Your task to perform on an android device: open app "Microsoft Authenticator" (install if not already installed) and enter user name: "Cornell@yahoo.com" and password: "bothersome" Image 0: 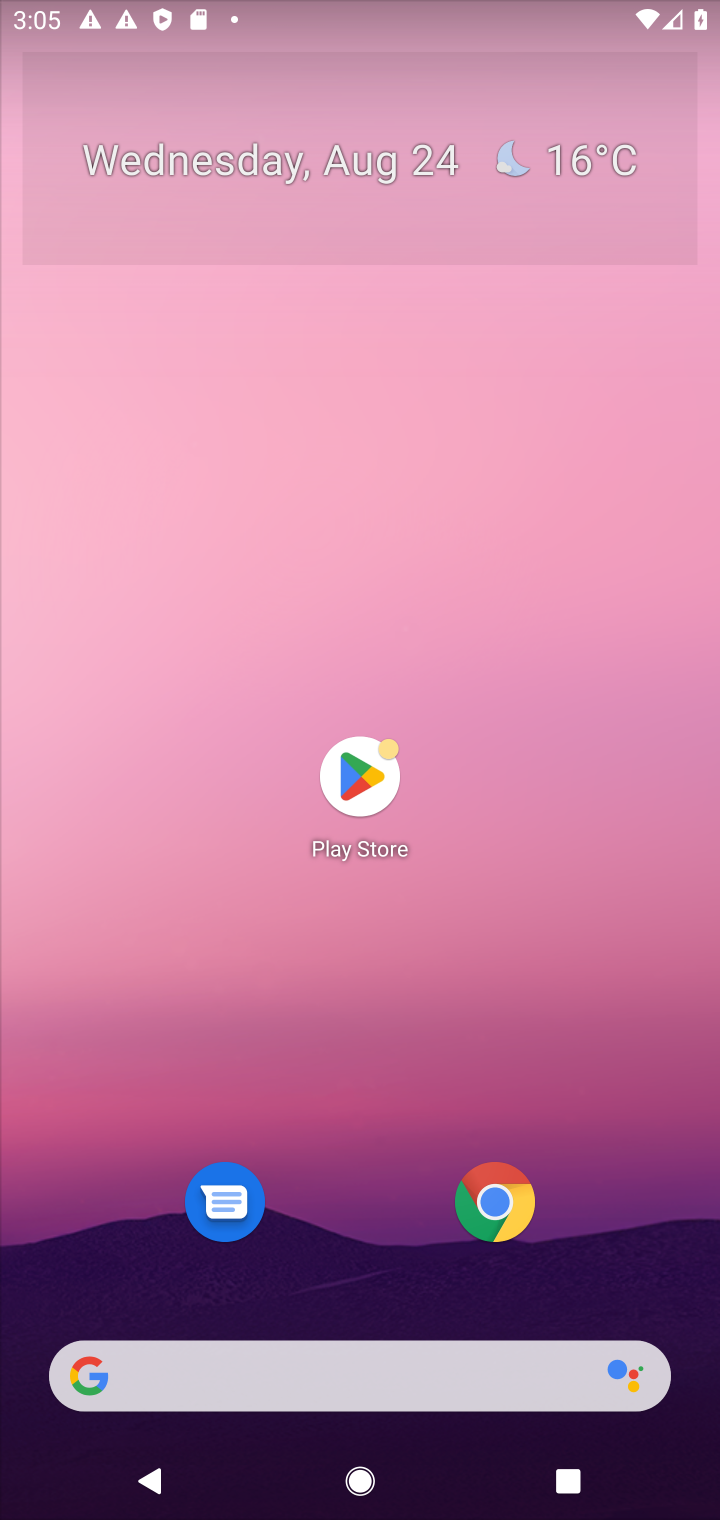
Step 0: click (351, 772)
Your task to perform on an android device: open app "Microsoft Authenticator" (install if not already installed) and enter user name: "Cornell@yahoo.com" and password: "bothersome" Image 1: 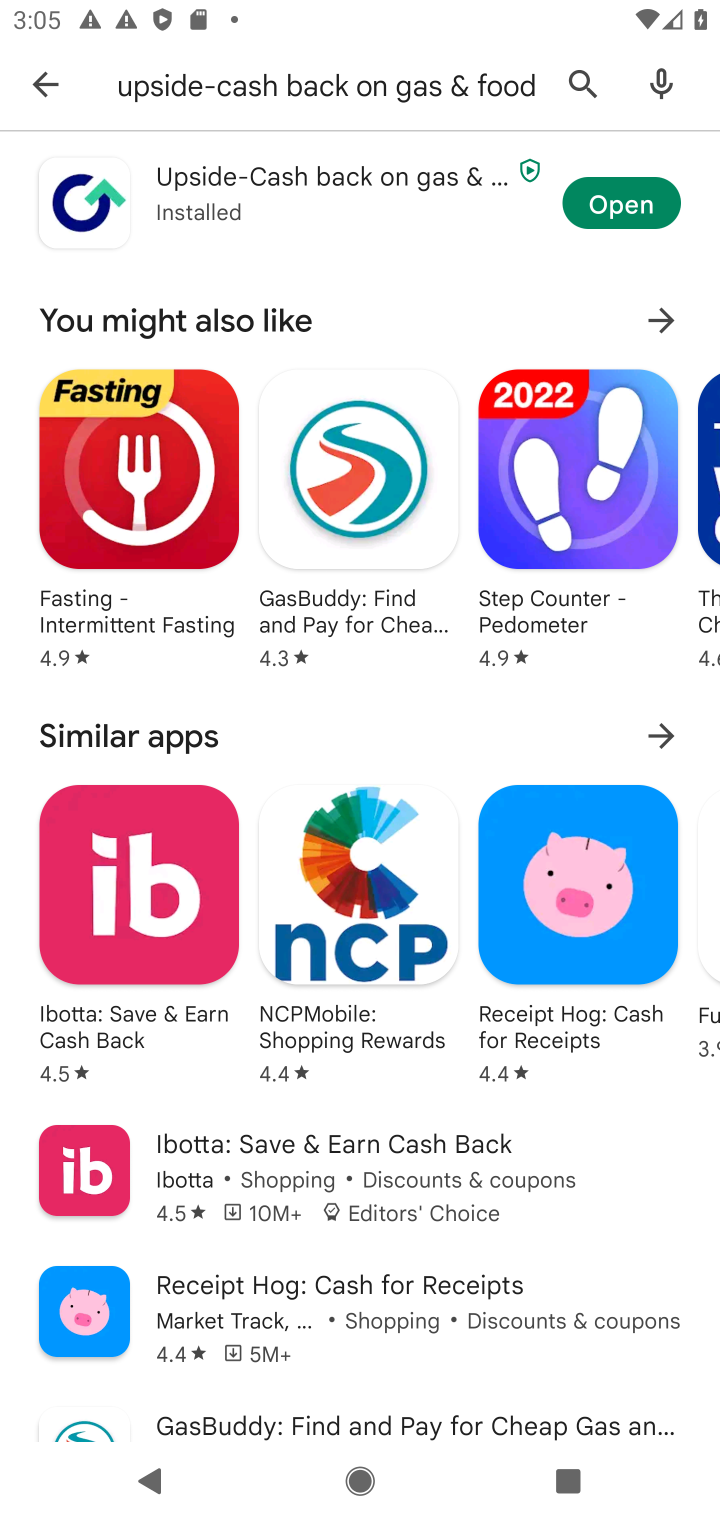
Step 1: click (577, 83)
Your task to perform on an android device: open app "Microsoft Authenticator" (install if not already installed) and enter user name: "Cornell@yahoo.com" and password: "bothersome" Image 2: 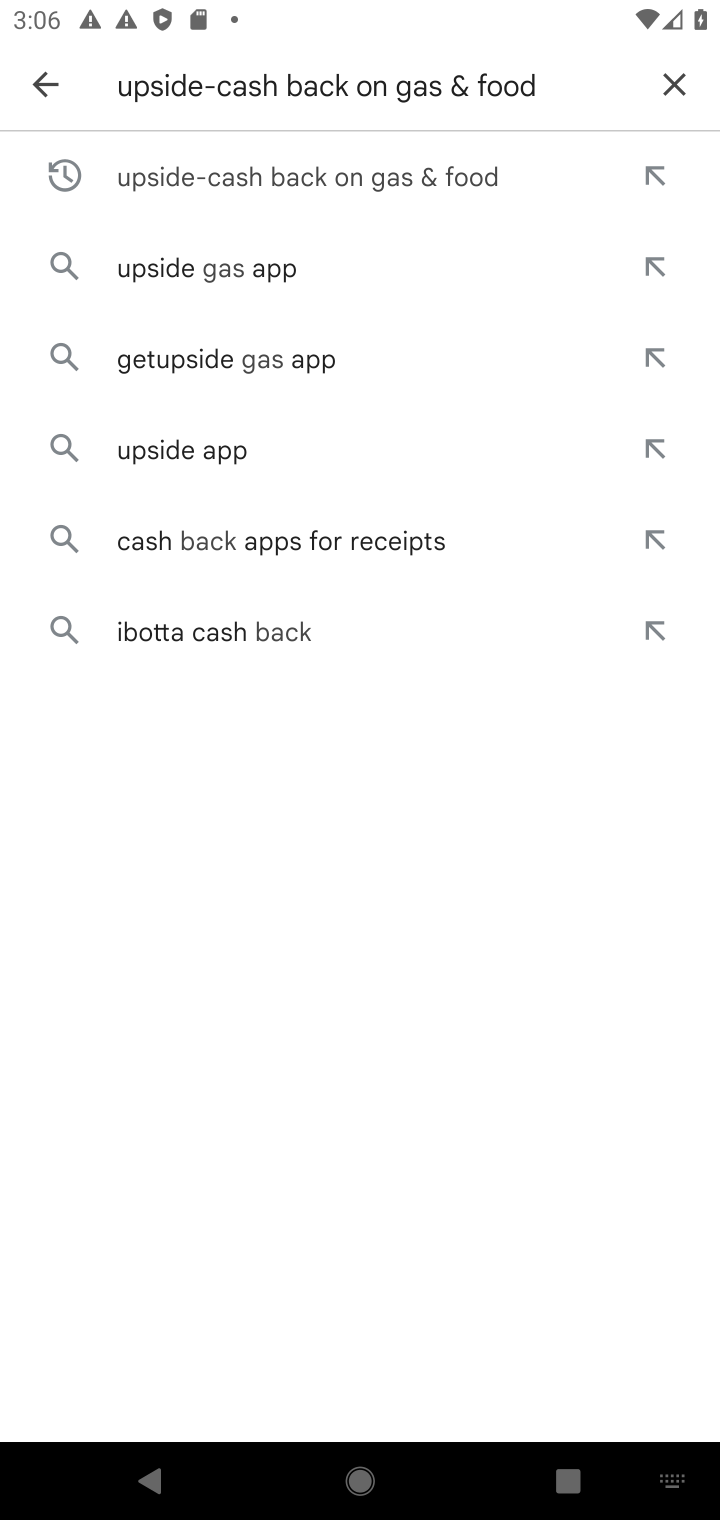
Step 2: click (673, 81)
Your task to perform on an android device: open app "Microsoft Authenticator" (install if not already installed) and enter user name: "Cornell@yahoo.com" and password: "bothersome" Image 3: 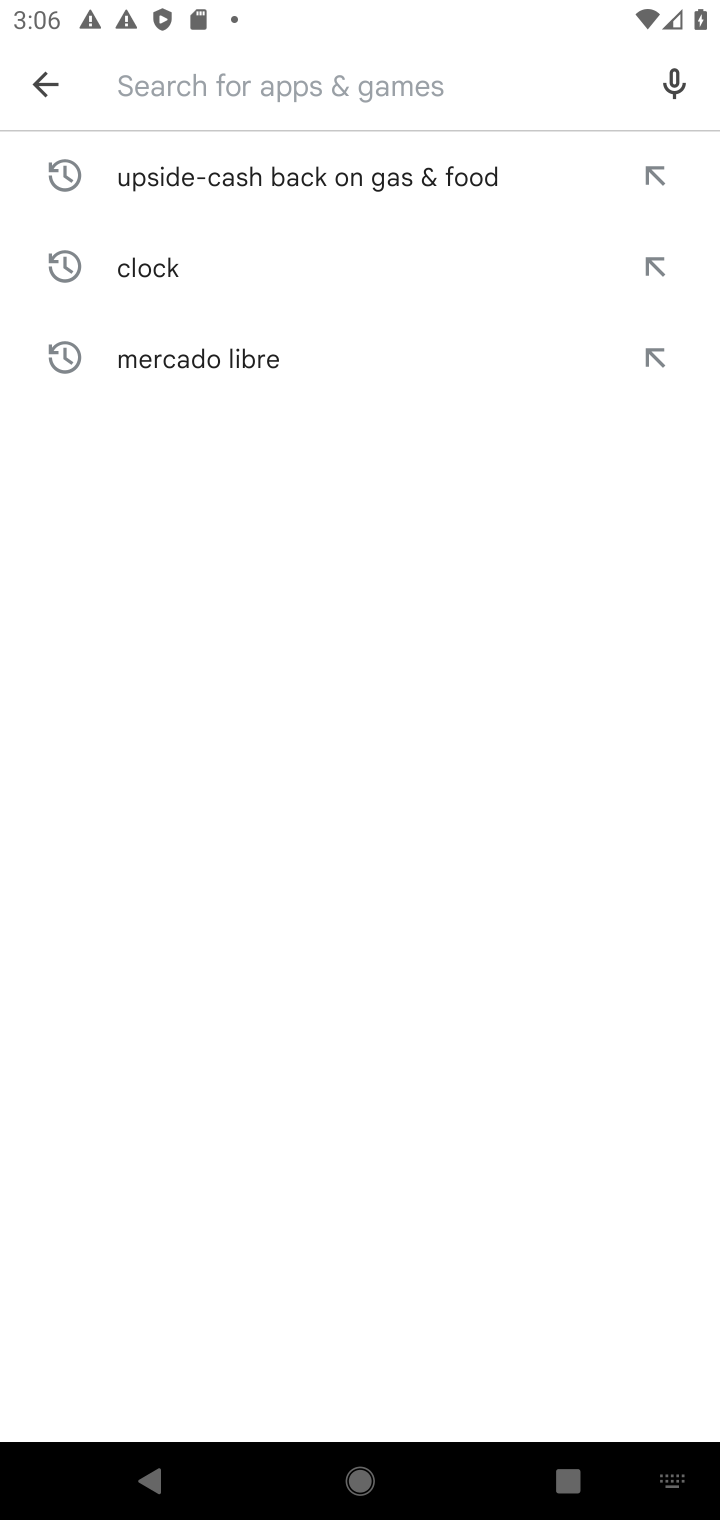
Step 3: type "Microsoft Authenticator"
Your task to perform on an android device: open app "Microsoft Authenticator" (install if not already installed) and enter user name: "Cornell@yahoo.com" and password: "bothersome" Image 4: 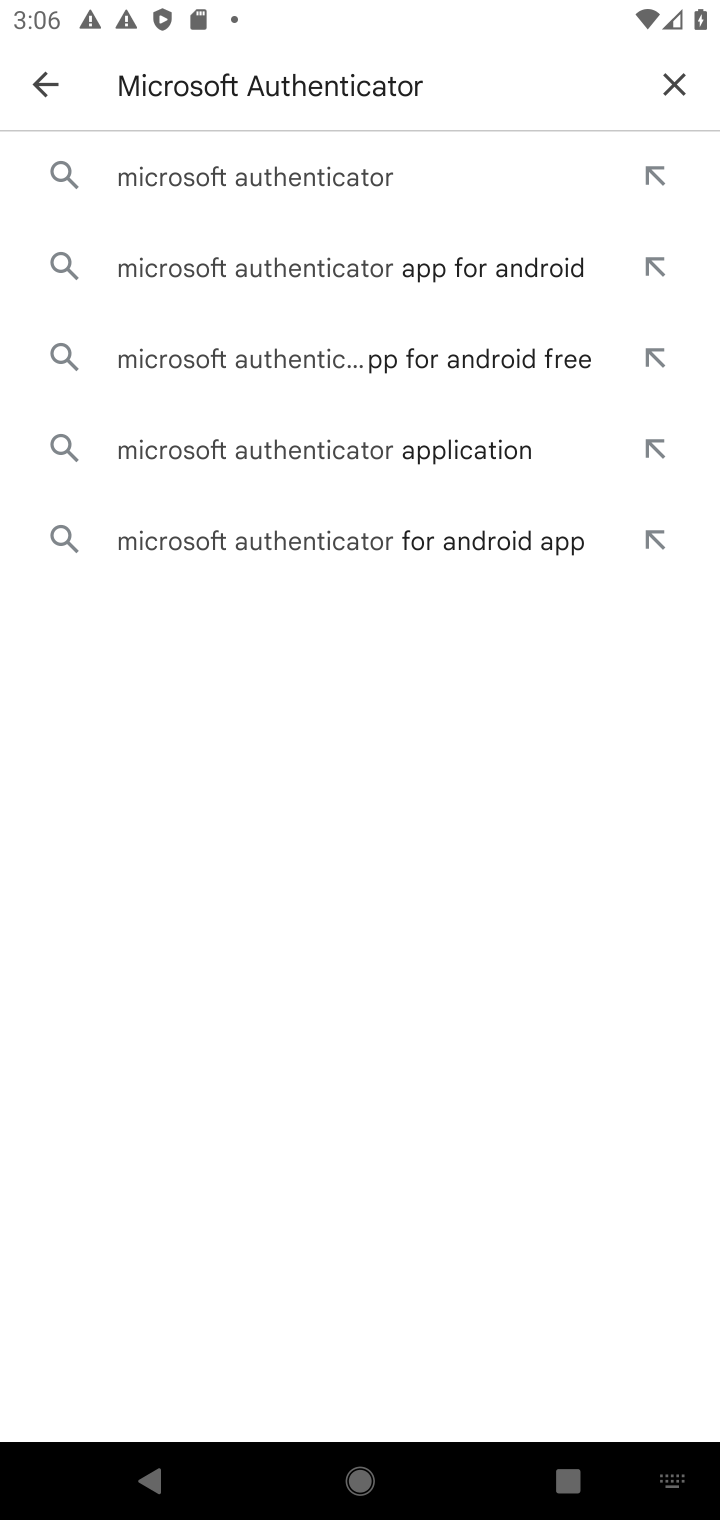
Step 4: click (219, 172)
Your task to perform on an android device: open app "Microsoft Authenticator" (install if not already installed) and enter user name: "Cornell@yahoo.com" and password: "bothersome" Image 5: 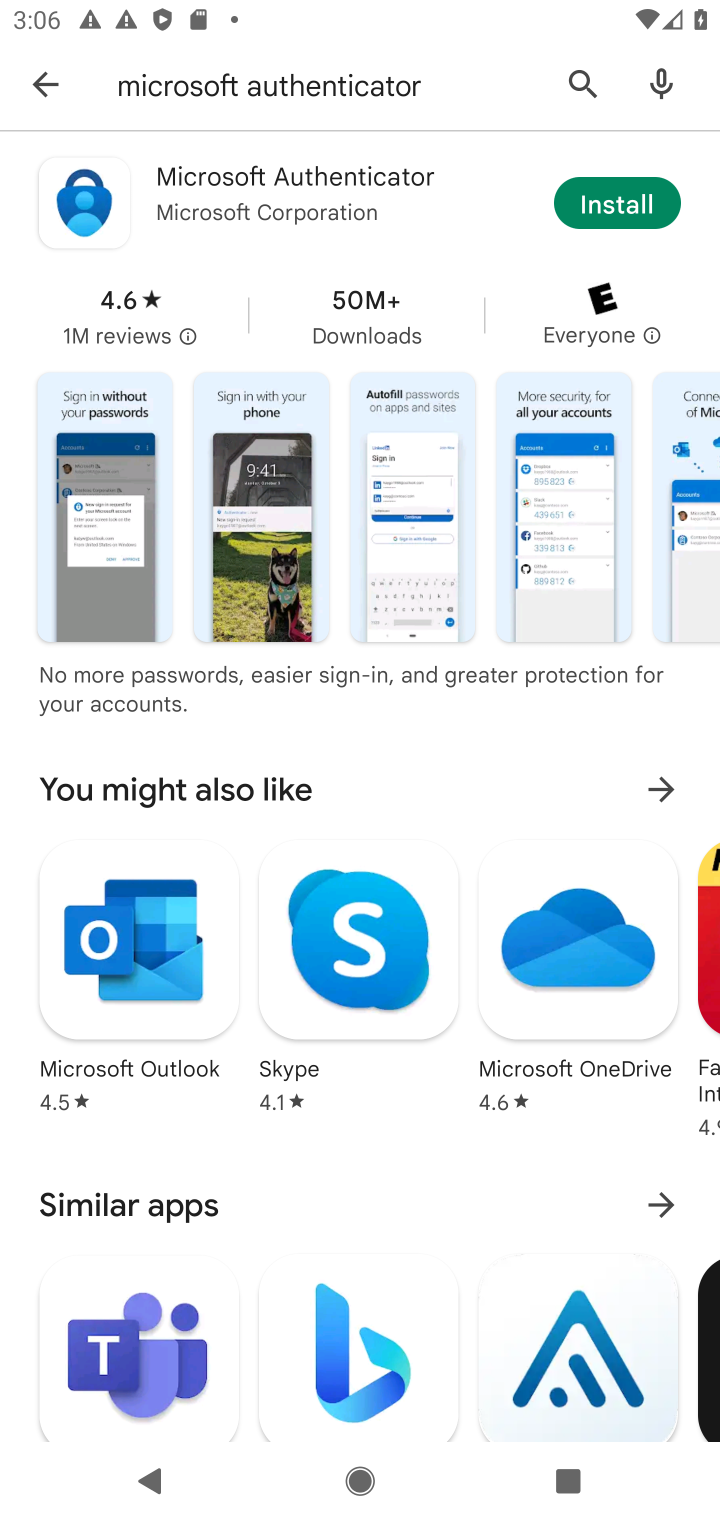
Step 5: click (626, 205)
Your task to perform on an android device: open app "Microsoft Authenticator" (install if not already installed) and enter user name: "Cornell@yahoo.com" and password: "bothersome" Image 6: 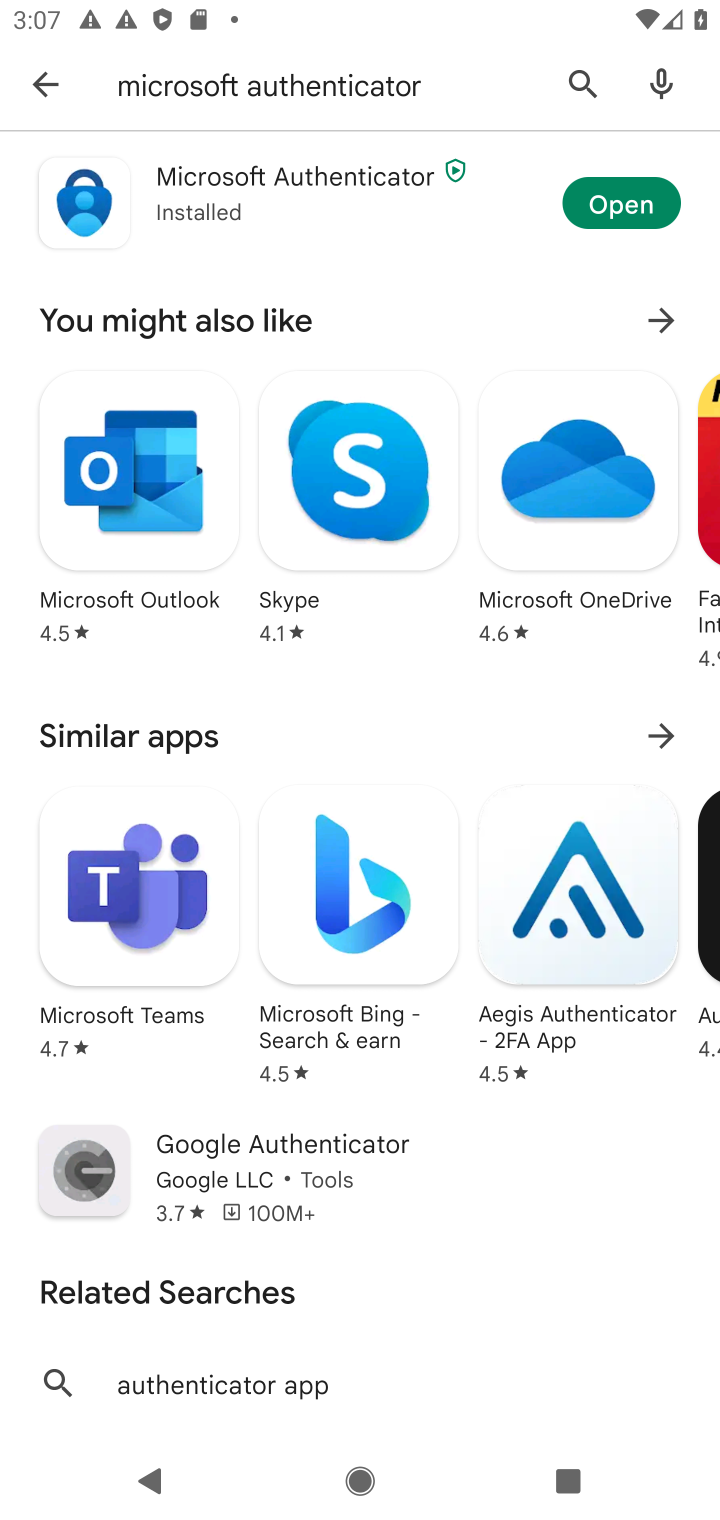
Step 6: click (636, 210)
Your task to perform on an android device: open app "Microsoft Authenticator" (install if not already installed) and enter user name: "Cornell@yahoo.com" and password: "bothersome" Image 7: 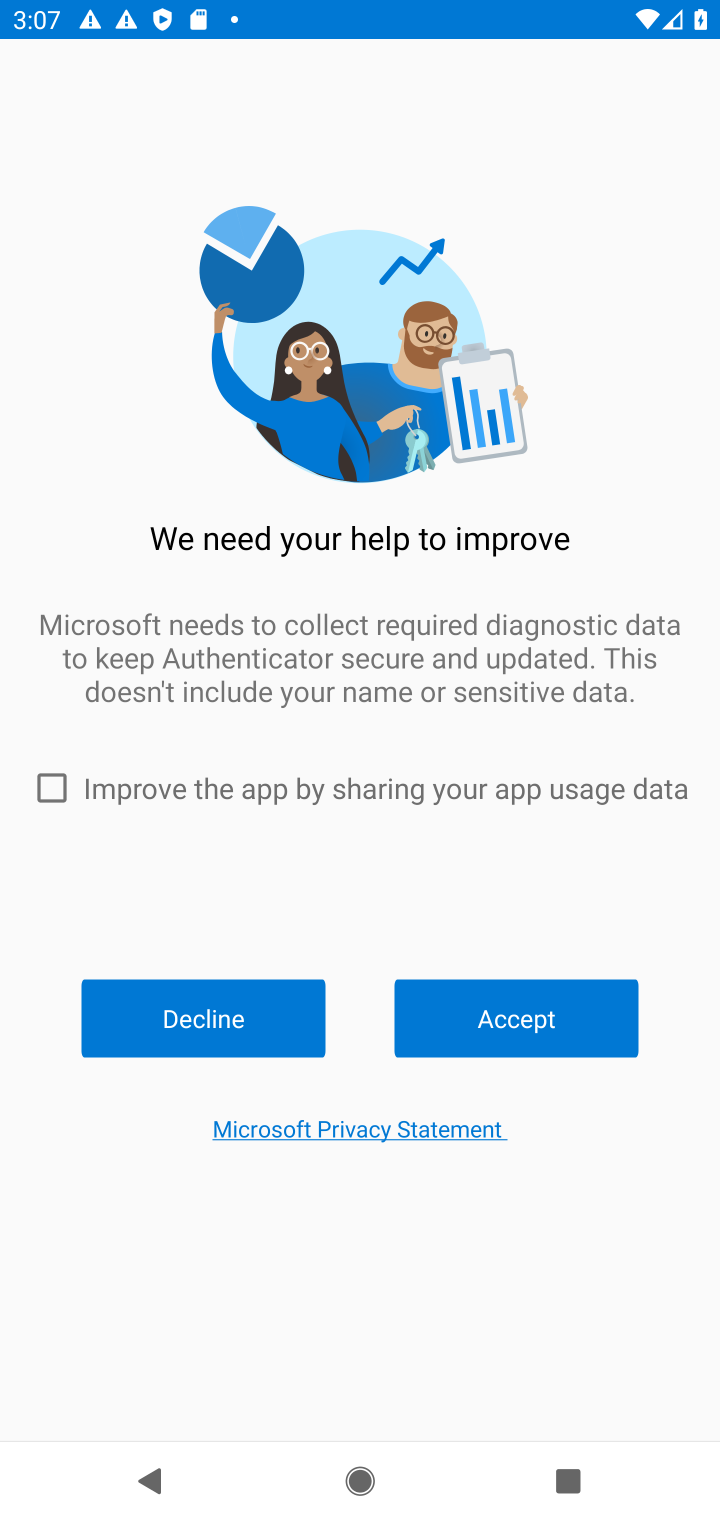
Step 7: click (514, 1031)
Your task to perform on an android device: open app "Microsoft Authenticator" (install if not already installed) and enter user name: "Cornell@yahoo.com" and password: "bothersome" Image 8: 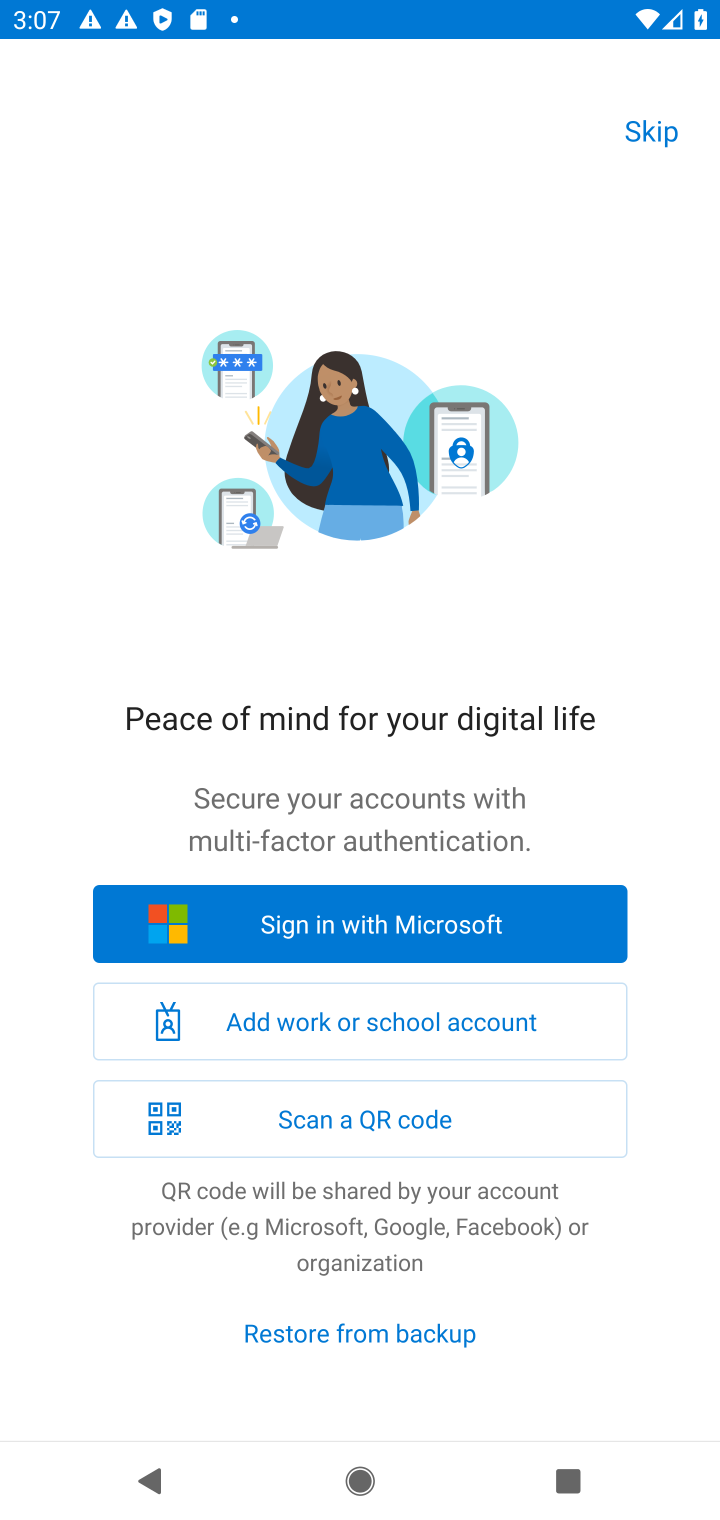
Step 8: click (658, 125)
Your task to perform on an android device: open app "Microsoft Authenticator" (install if not already installed) and enter user name: "Cornell@yahoo.com" and password: "bothersome" Image 9: 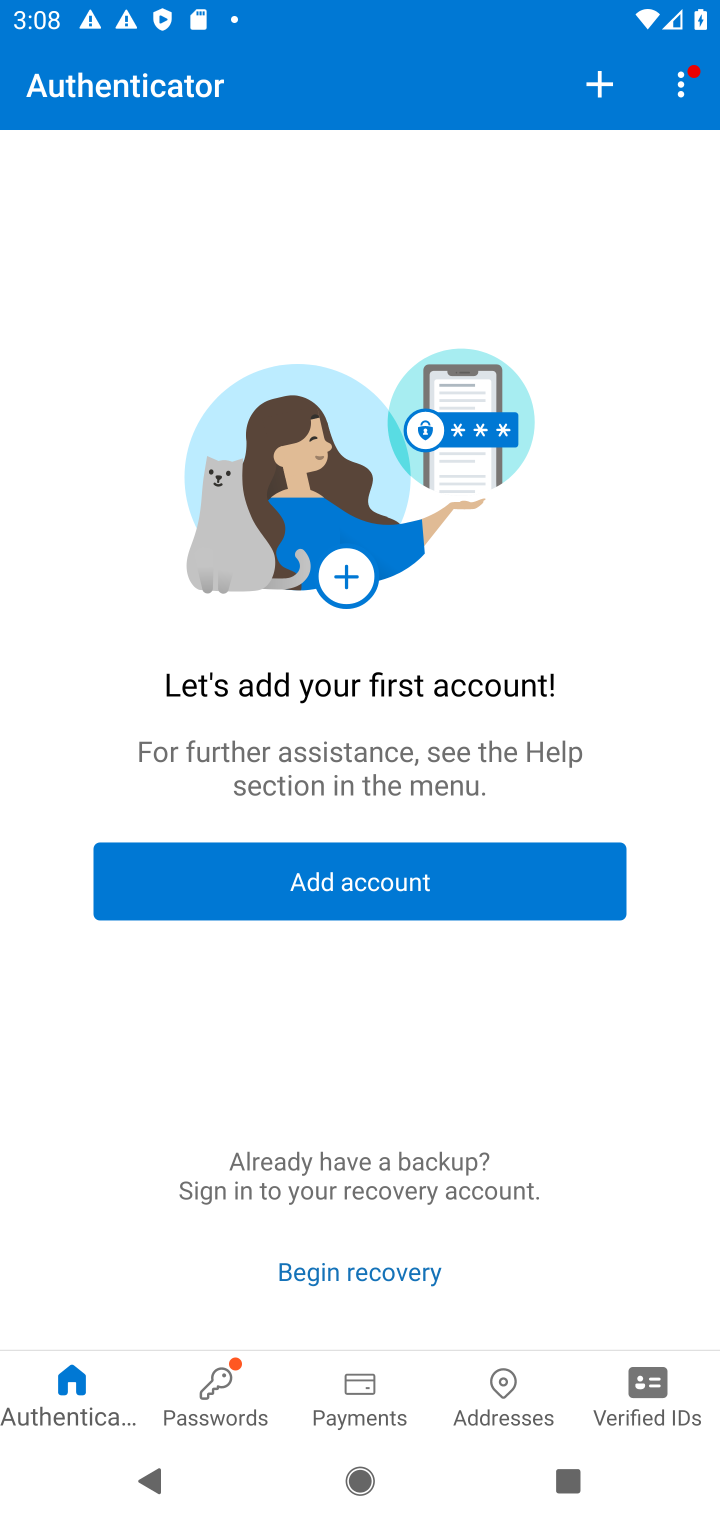
Step 9: task complete